Your task to perform on an android device: Open calendar and show me the first week of next month Image 0: 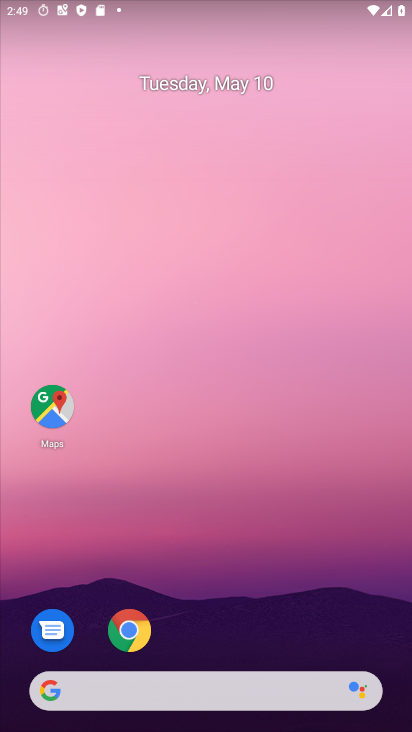
Step 0: drag from (257, 455) to (275, 37)
Your task to perform on an android device: Open calendar and show me the first week of next month Image 1: 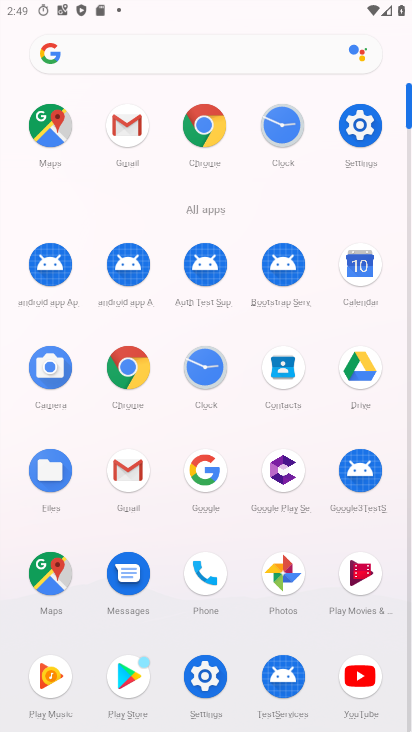
Step 1: click (352, 275)
Your task to perform on an android device: Open calendar and show me the first week of next month Image 2: 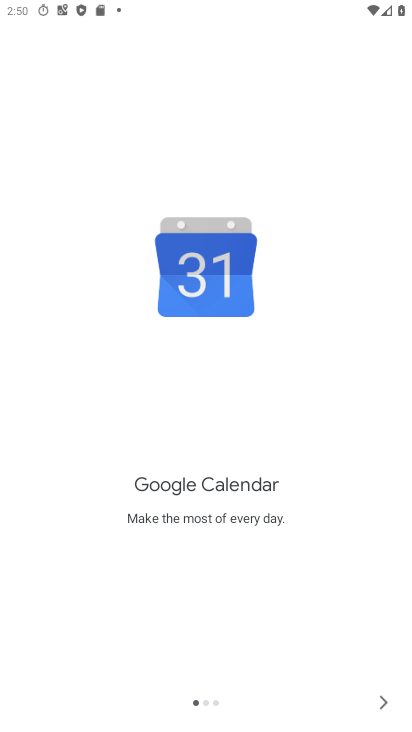
Step 2: click (375, 693)
Your task to perform on an android device: Open calendar and show me the first week of next month Image 3: 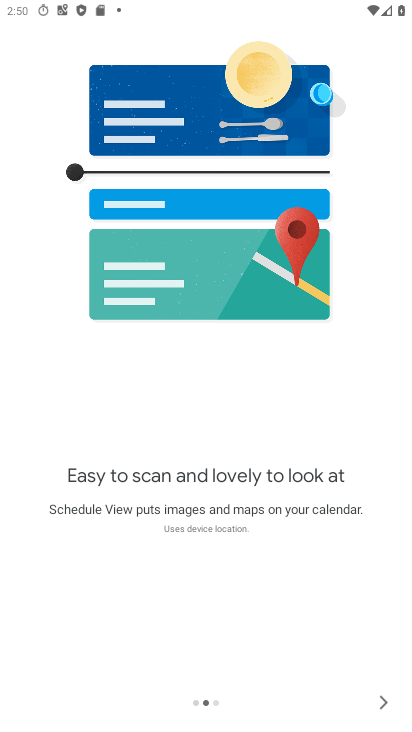
Step 3: click (375, 693)
Your task to perform on an android device: Open calendar and show me the first week of next month Image 4: 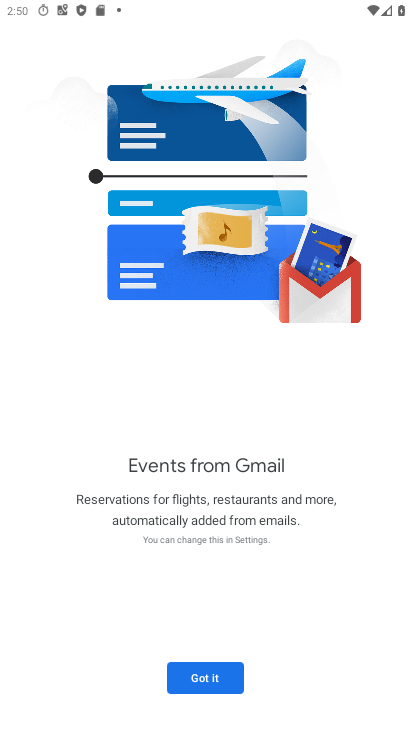
Step 4: click (204, 683)
Your task to perform on an android device: Open calendar and show me the first week of next month Image 5: 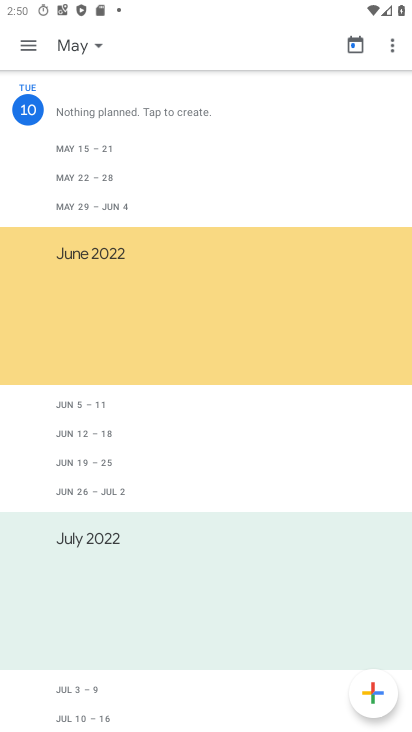
Step 5: click (69, 48)
Your task to perform on an android device: Open calendar and show me the first week of next month Image 6: 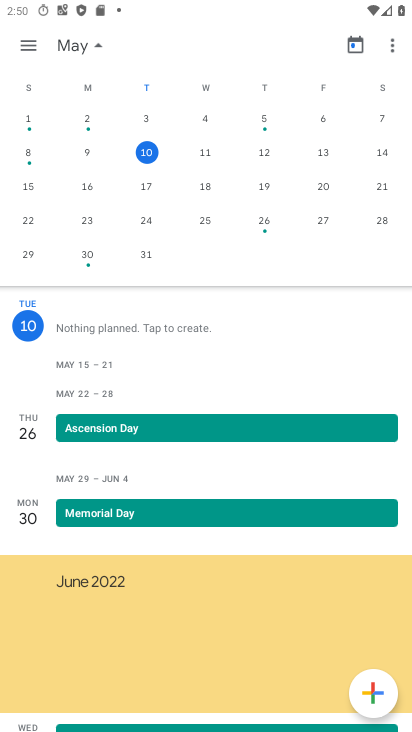
Step 6: click (23, 36)
Your task to perform on an android device: Open calendar and show me the first week of next month Image 7: 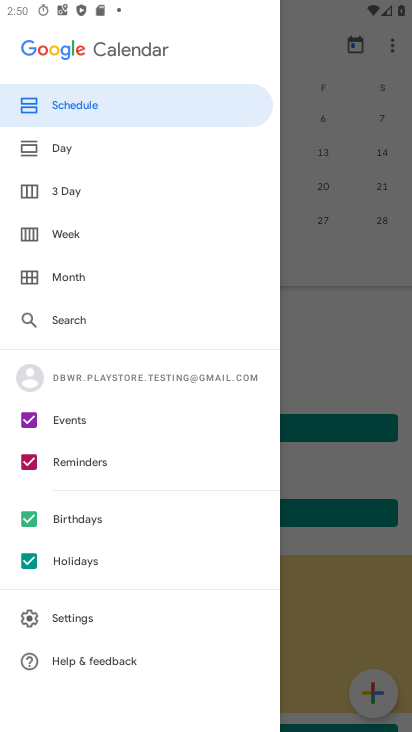
Step 7: click (92, 226)
Your task to perform on an android device: Open calendar and show me the first week of next month Image 8: 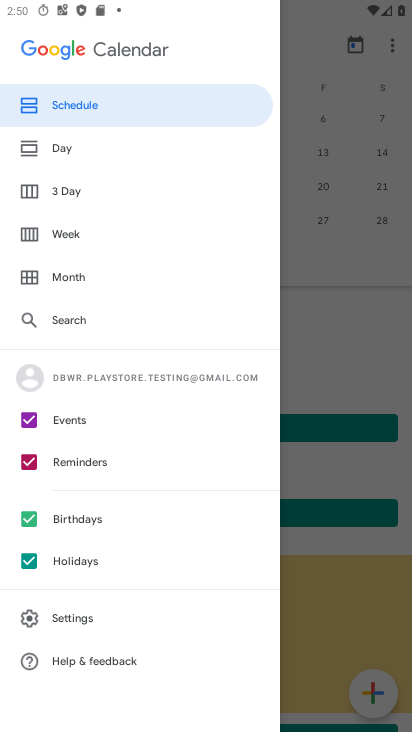
Step 8: click (77, 236)
Your task to perform on an android device: Open calendar and show me the first week of next month Image 9: 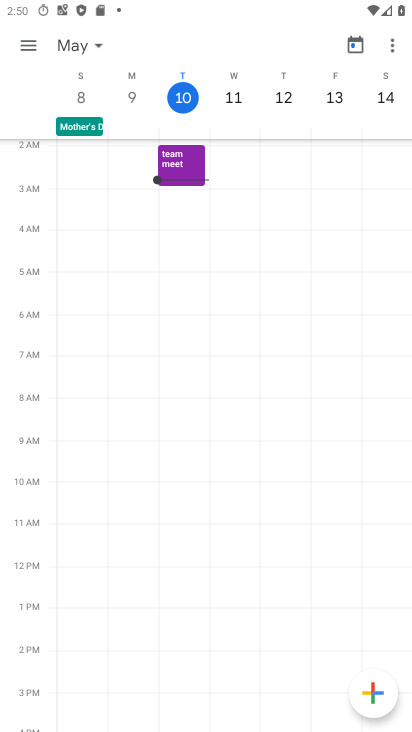
Step 9: drag from (284, 210) to (110, 186)
Your task to perform on an android device: Open calendar and show me the first week of next month Image 10: 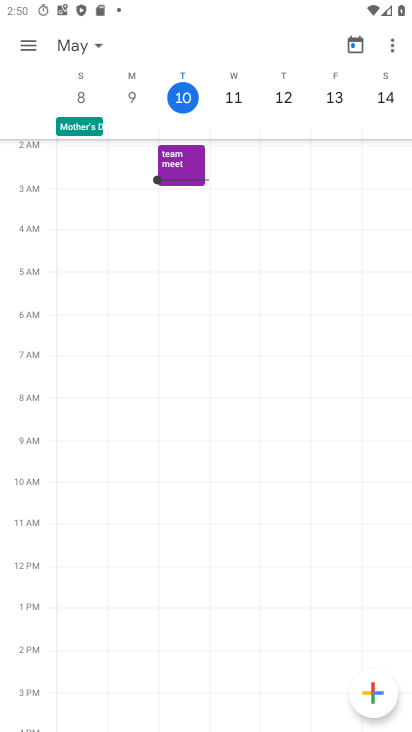
Step 10: click (94, 42)
Your task to perform on an android device: Open calendar and show me the first week of next month Image 11: 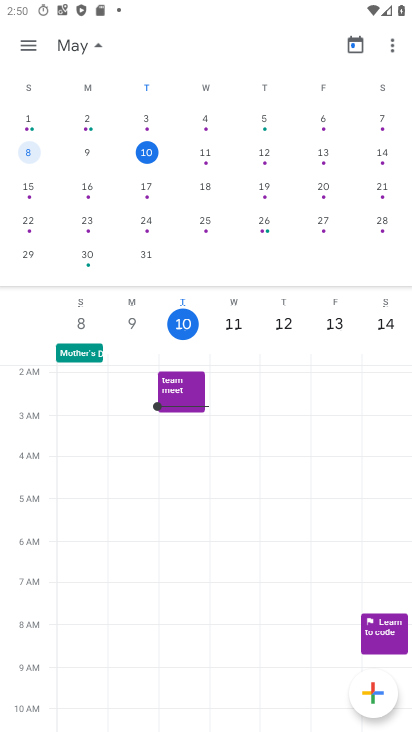
Step 11: drag from (379, 201) to (23, 178)
Your task to perform on an android device: Open calendar and show me the first week of next month Image 12: 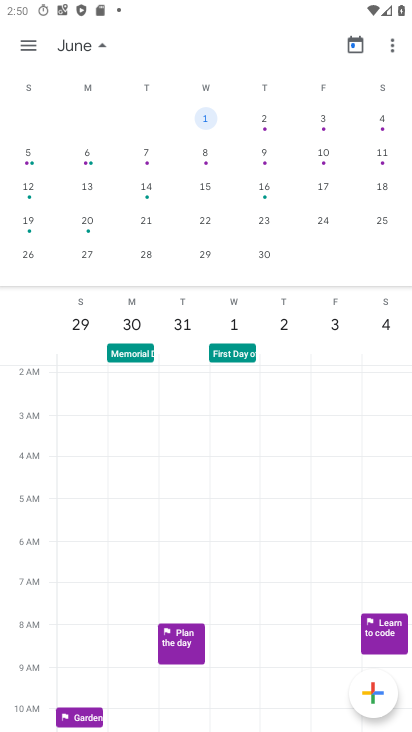
Step 12: click (392, 231)
Your task to perform on an android device: Open calendar and show me the first week of next month Image 13: 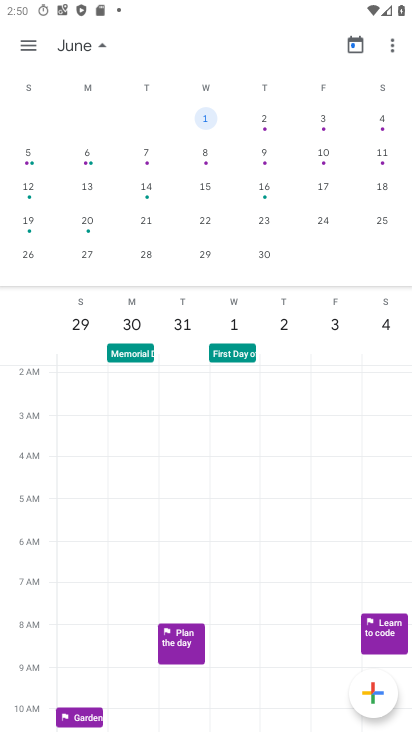
Step 13: click (380, 129)
Your task to perform on an android device: Open calendar and show me the first week of next month Image 14: 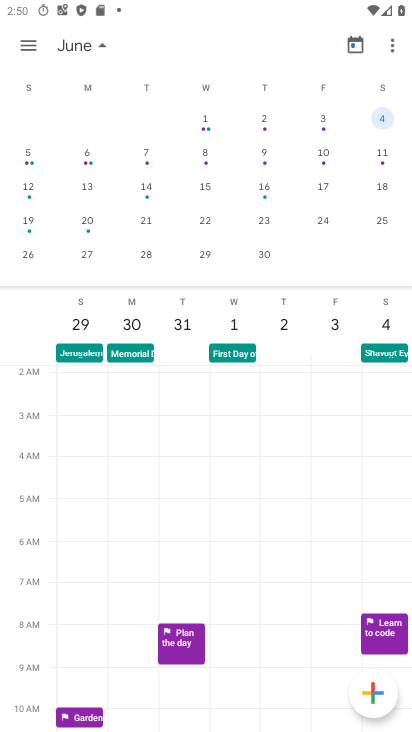
Step 14: task complete